Your task to perform on an android device: add a label to a message in the gmail app Image 0: 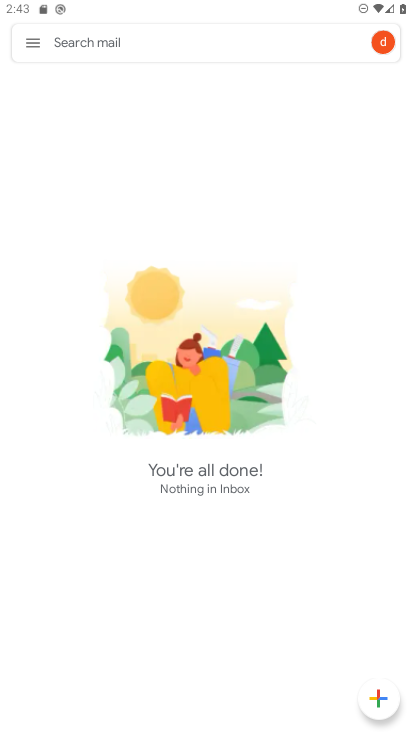
Step 0: press home button
Your task to perform on an android device: add a label to a message in the gmail app Image 1: 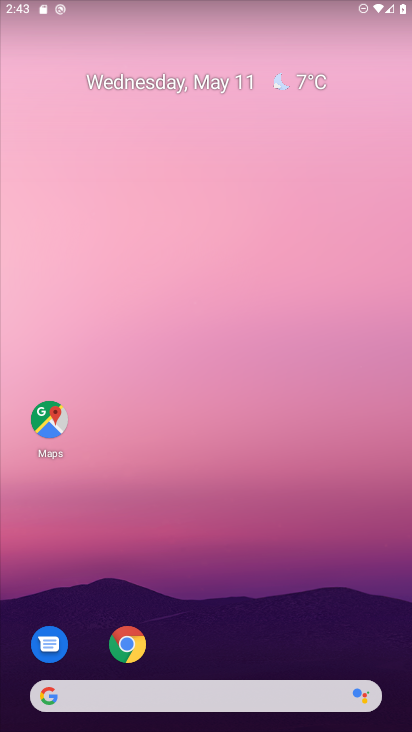
Step 1: drag from (195, 668) to (286, 1)
Your task to perform on an android device: add a label to a message in the gmail app Image 2: 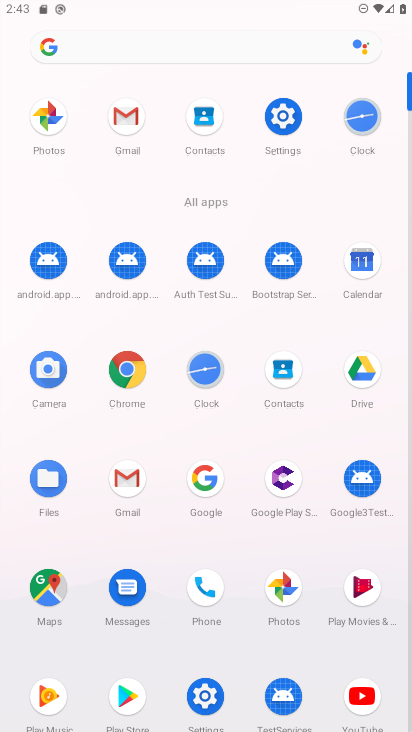
Step 2: click (131, 478)
Your task to perform on an android device: add a label to a message in the gmail app Image 3: 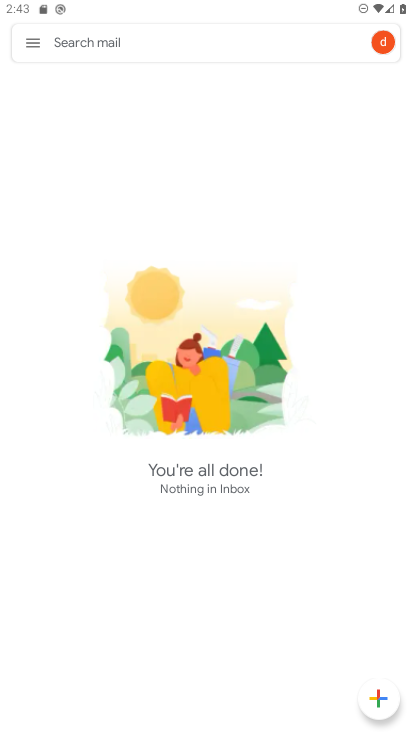
Step 3: task complete